Your task to perform on an android device: choose inbox layout in the gmail app Image 0: 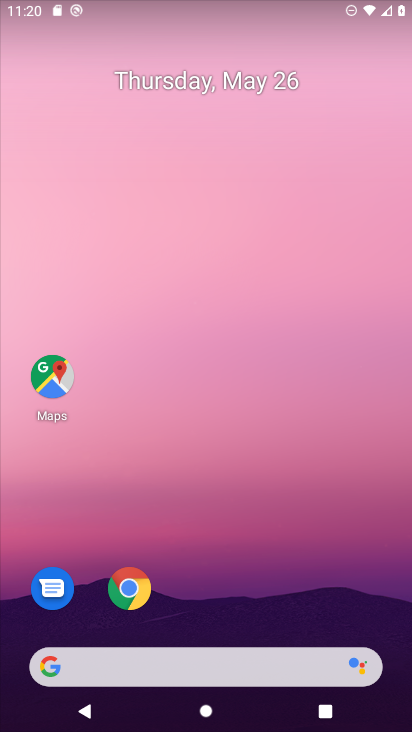
Step 0: drag from (392, 637) to (345, 13)
Your task to perform on an android device: choose inbox layout in the gmail app Image 1: 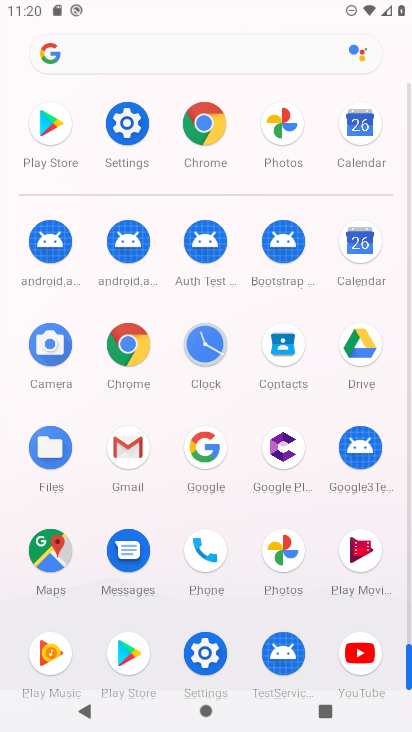
Step 1: click (130, 448)
Your task to perform on an android device: choose inbox layout in the gmail app Image 2: 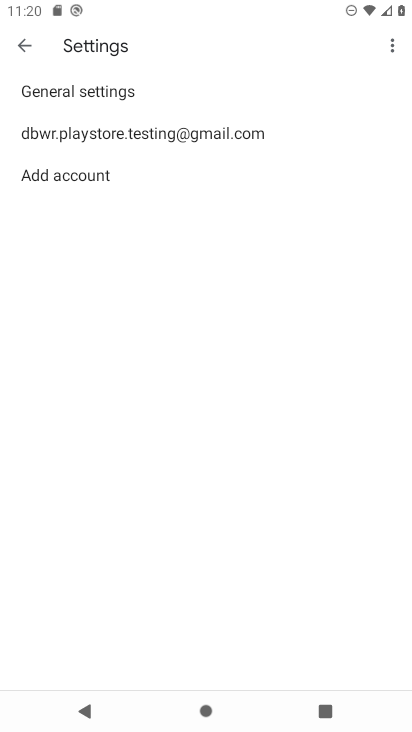
Step 2: click (135, 131)
Your task to perform on an android device: choose inbox layout in the gmail app Image 3: 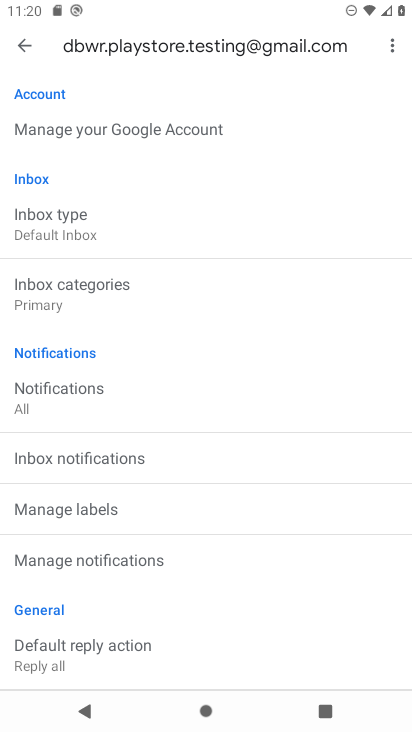
Step 3: click (55, 224)
Your task to perform on an android device: choose inbox layout in the gmail app Image 4: 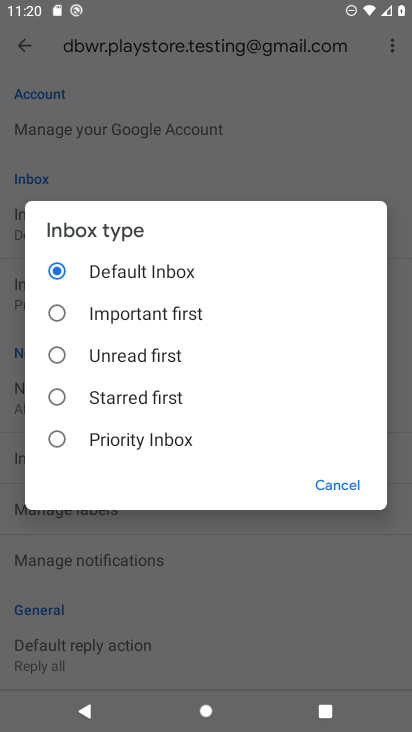
Step 4: click (57, 313)
Your task to perform on an android device: choose inbox layout in the gmail app Image 5: 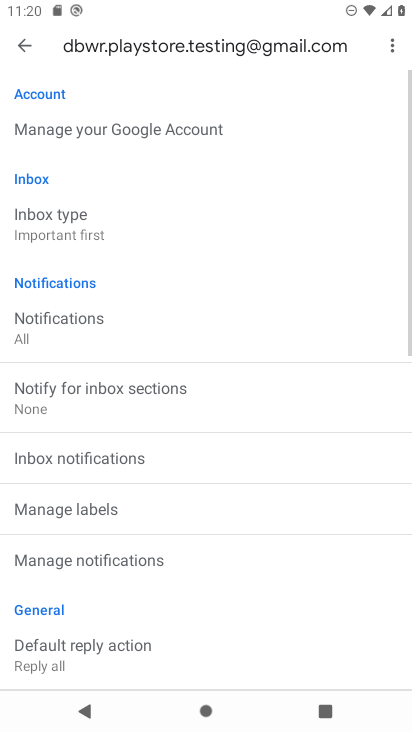
Step 5: task complete